Your task to perform on an android device: turn on airplane mode Image 0: 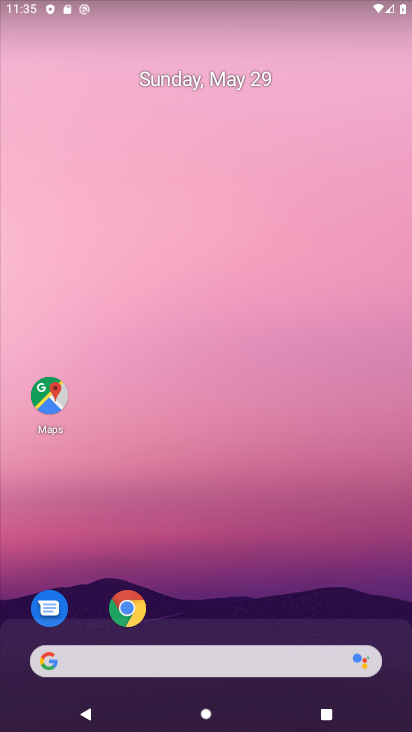
Step 0: drag from (210, 577) to (129, 0)
Your task to perform on an android device: turn on airplane mode Image 1: 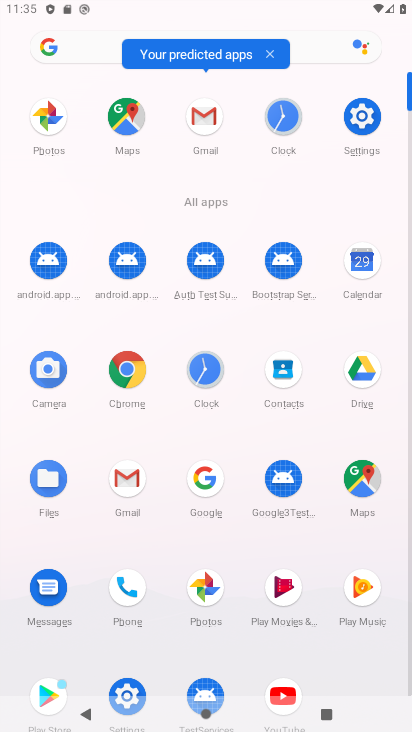
Step 1: click (346, 124)
Your task to perform on an android device: turn on airplane mode Image 2: 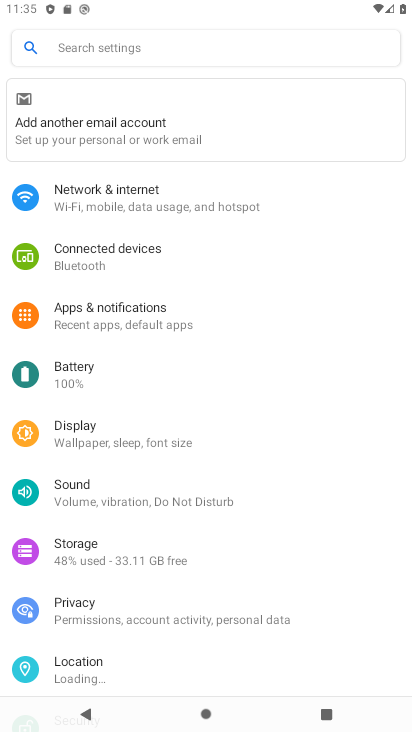
Step 2: click (89, 203)
Your task to perform on an android device: turn on airplane mode Image 3: 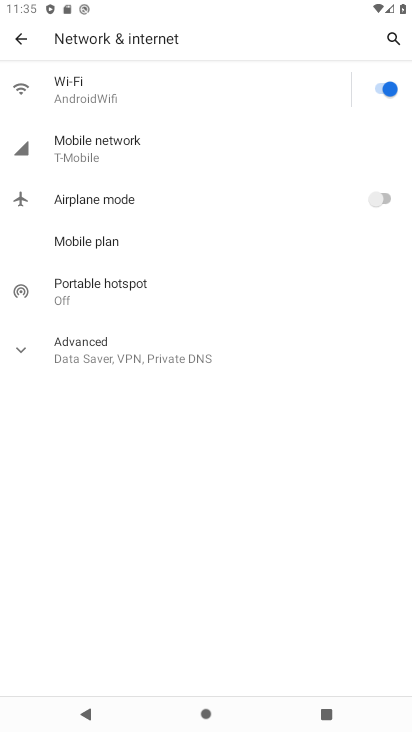
Step 3: click (379, 194)
Your task to perform on an android device: turn on airplane mode Image 4: 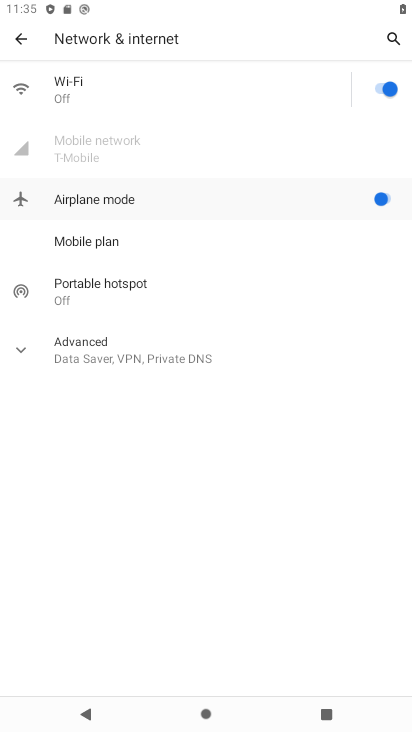
Step 4: task complete